Your task to perform on an android device: change text size in settings app Image 0: 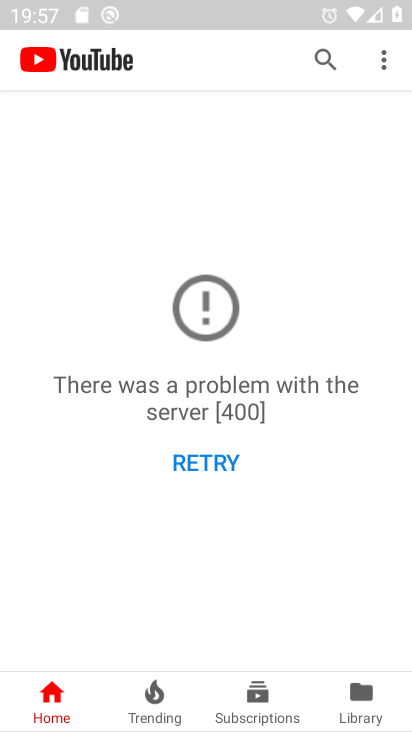
Step 0: press home button
Your task to perform on an android device: change text size in settings app Image 1: 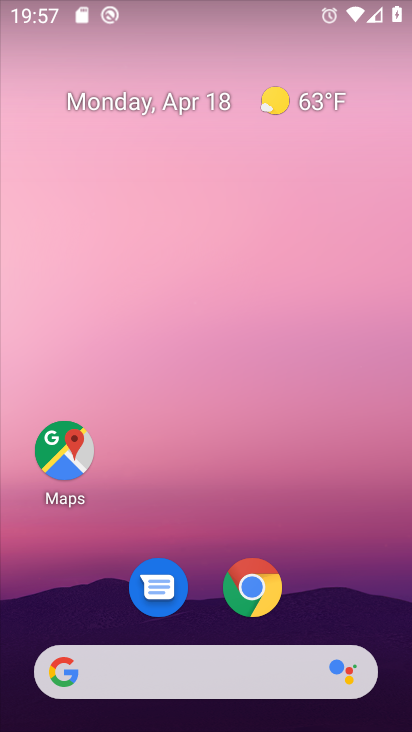
Step 1: drag from (335, 588) to (239, 40)
Your task to perform on an android device: change text size in settings app Image 2: 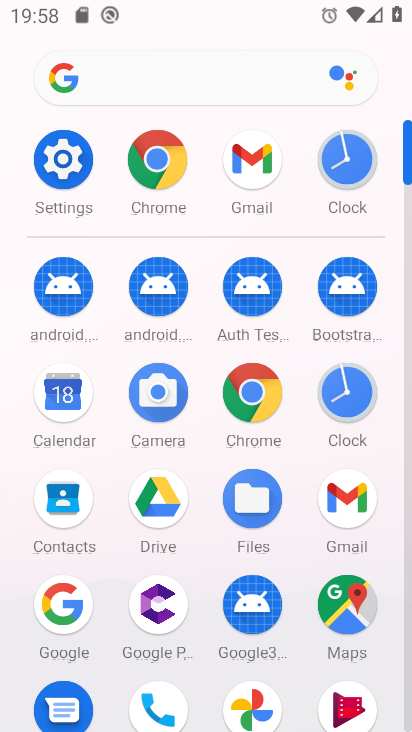
Step 2: click (70, 207)
Your task to perform on an android device: change text size in settings app Image 3: 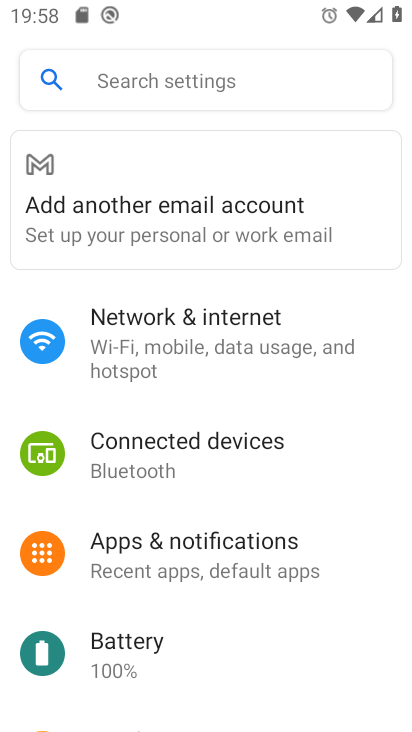
Step 3: drag from (261, 605) to (224, 388)
Your task to perform on an android device: change text size in settings app Image 4: 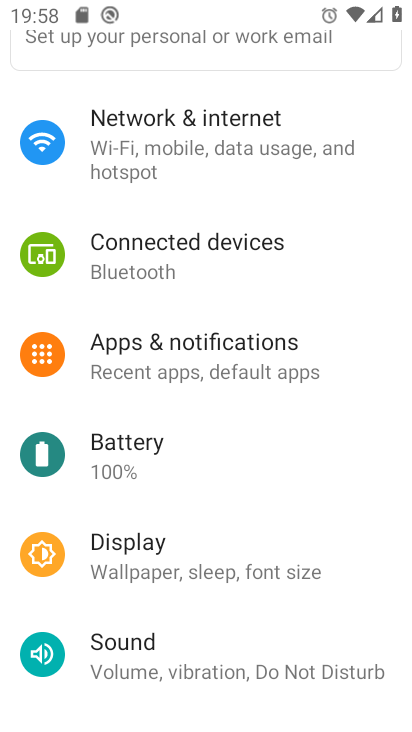
Step 4: click (201, 543)
Your task to perform on an android device: change text size in settings app Image 5: 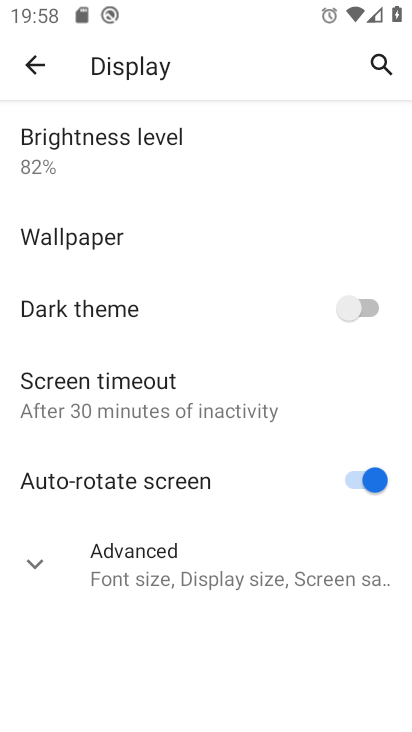
Step 5: click (106, 535)
Your task to perform on an android device: change text size in settings app Image 6: 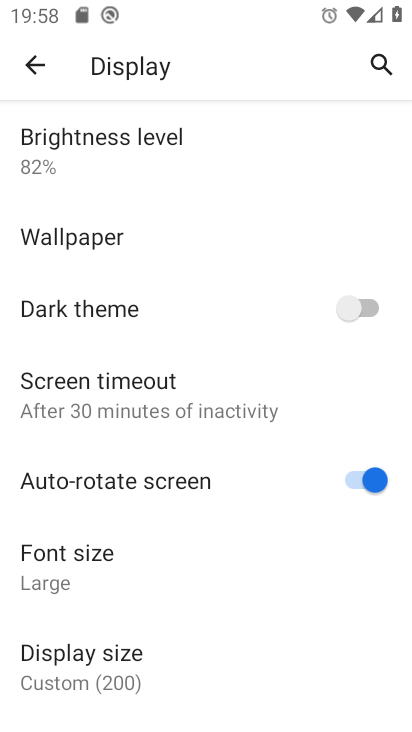
Step 6: click (121, 571)
Your task to perform on an android device: change text size in settings app Image 7: 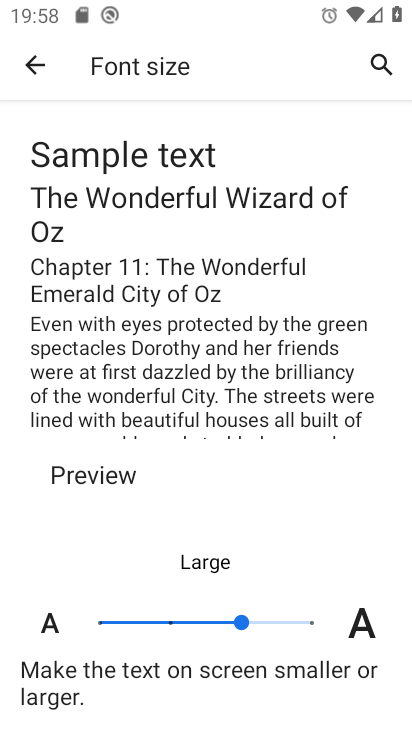
Step 7: click (312, 622)
Your task to perform on an android device: change text size in settings app Image 8: 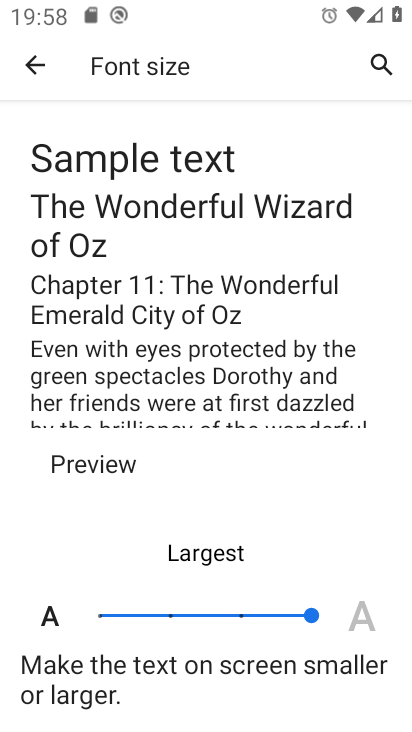
Step 8: task complete